Your task to perform on an android device: Open settings Image 0: 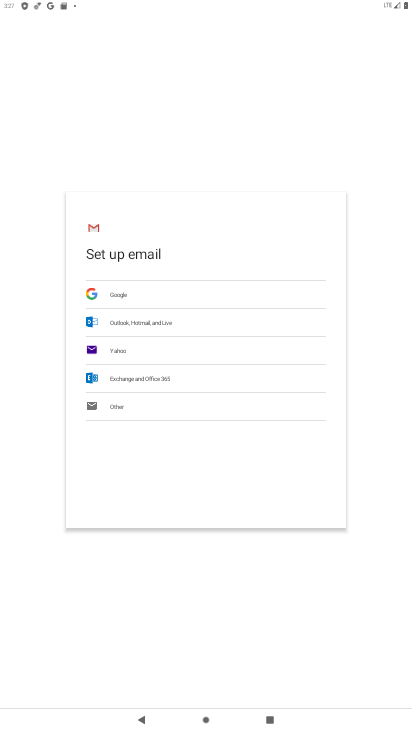
Step 0: press home button
Your task to perform on an android device: Open settings Image 1: 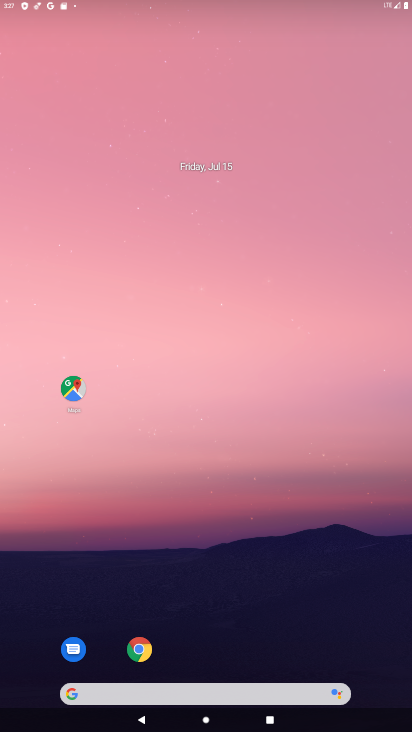
Step 1: drag from (201, 627) to (155, 128)
Your task to perform on an android device: Open settings Image 2: 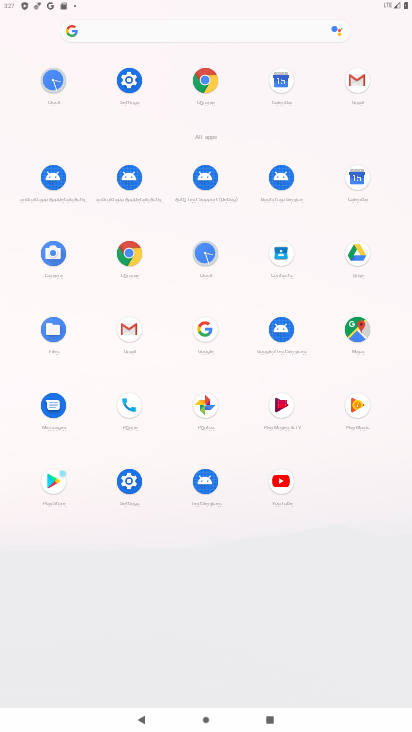
Step 2: click (128, 82)
Your task to perform on an android device: Open settings Image 3: 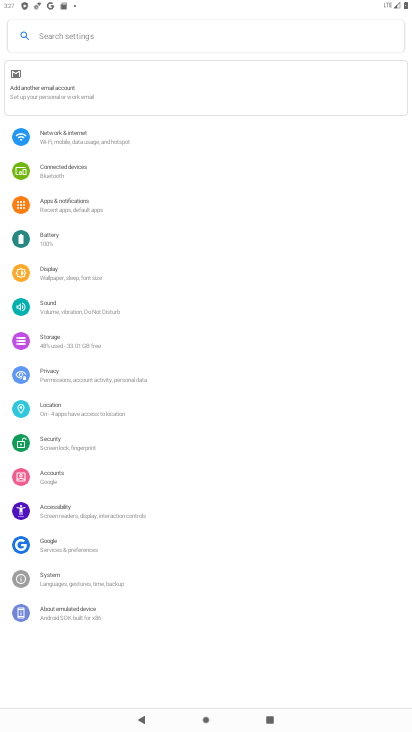
Step 3: task complete